Your task to perform on an android device: stop showing notifications on the lock screen Image 0: 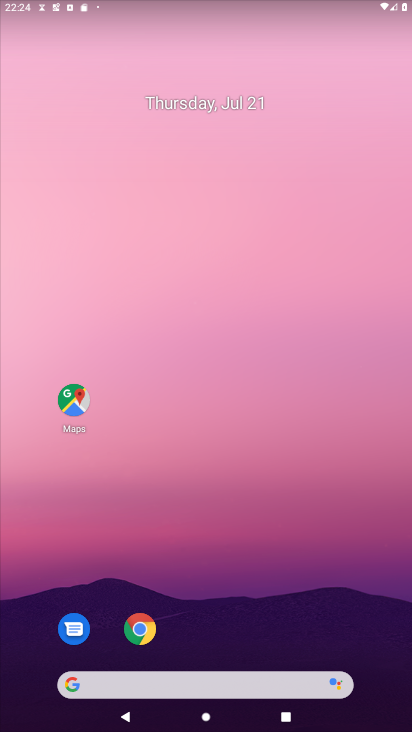
Step 0: drag from (239, 563) to (243, 66)
Your task to perform on an android device: stop showing notifications on the lock screen Image 1: 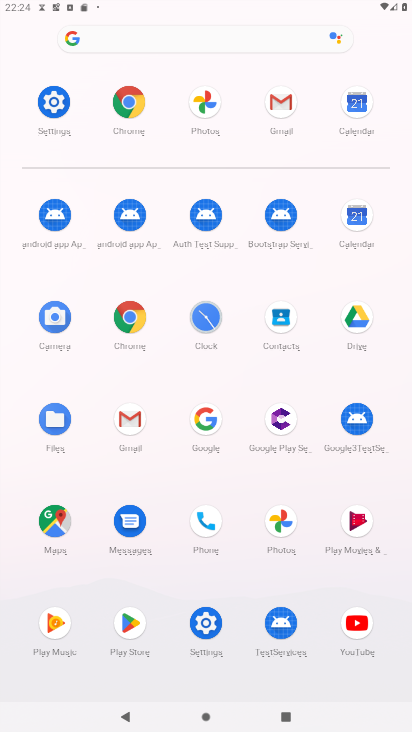
Step 1: click (197, 628)
Your task to perform on an android device: stop showing notifications on the lock screen Image 2: 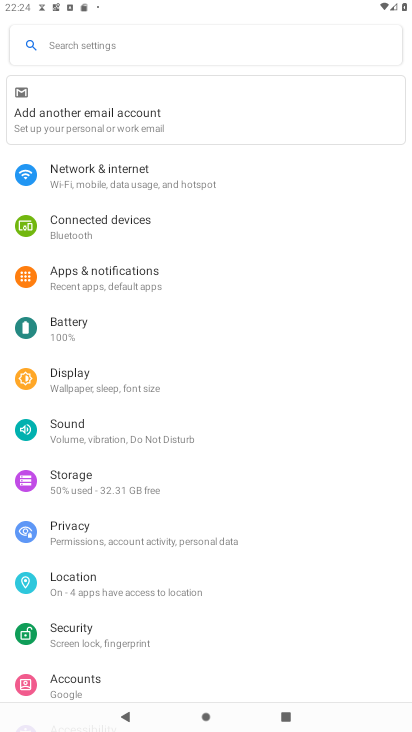
Step 2: click (156, 289)
Your task to perform on an android device: stop showing notifications on the lock screen Image 3: 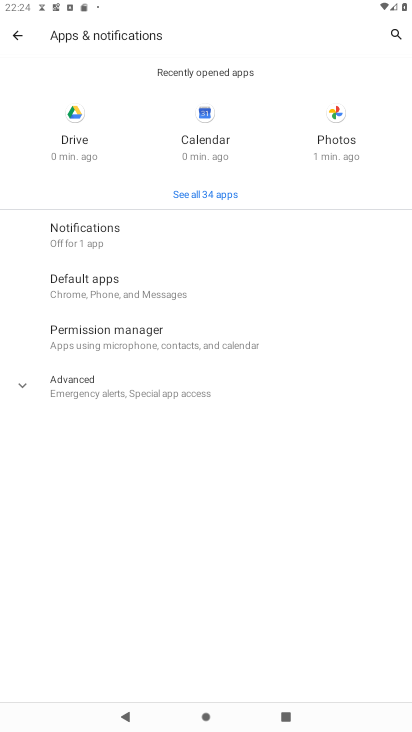
Step 3: click (132, 245)
Your task to perform on an android device: stop showing notifications on the lock screen Image 4: 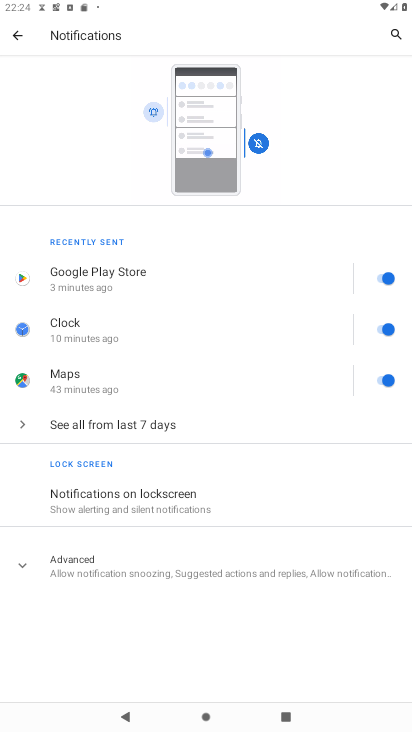
Step 4: click (153, 513)
Your task to perform on an android device: stop showing notifications on the lock screen Image 5: 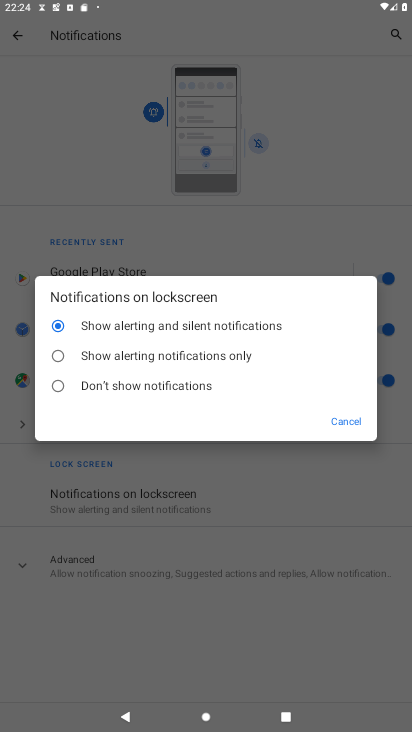
Step 5: click (127, 388)
Your task to perform on an android device: stop showing notifications on the lock screen Image 6: 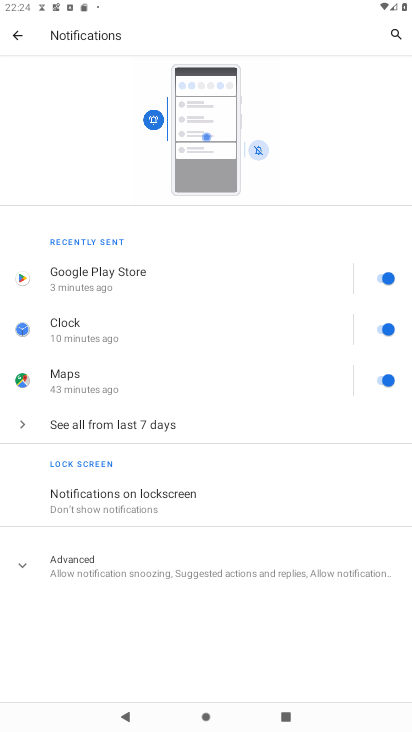
Step 6: task complete